Your task to perform on an android device: turn on priority inbox in the gmail app Image 0: 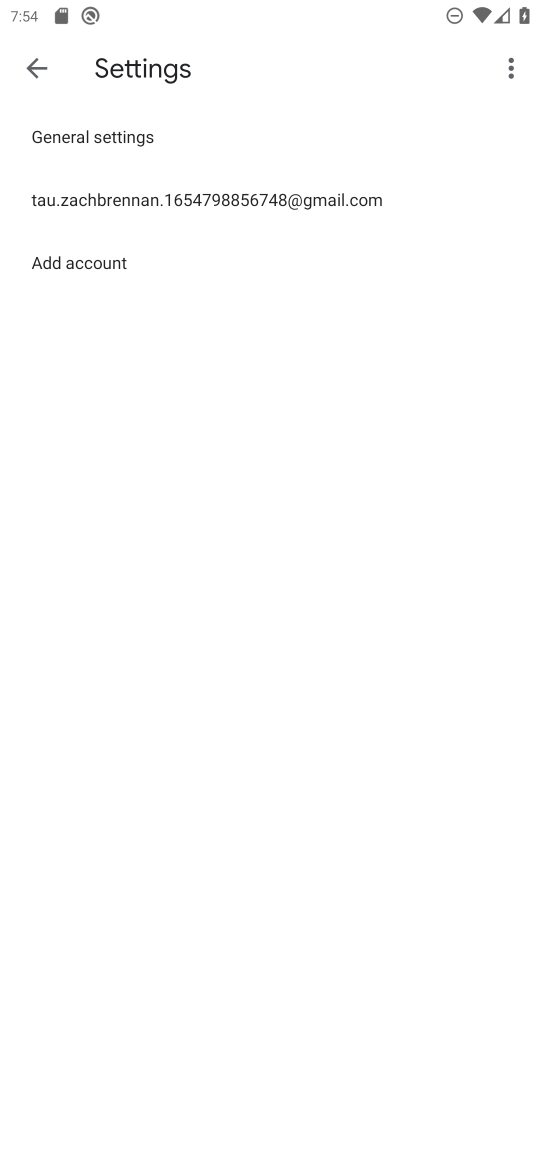
Step 0: press back button
Your task to perform on an android device: turn on priority inbox in the gmail app Image 1: 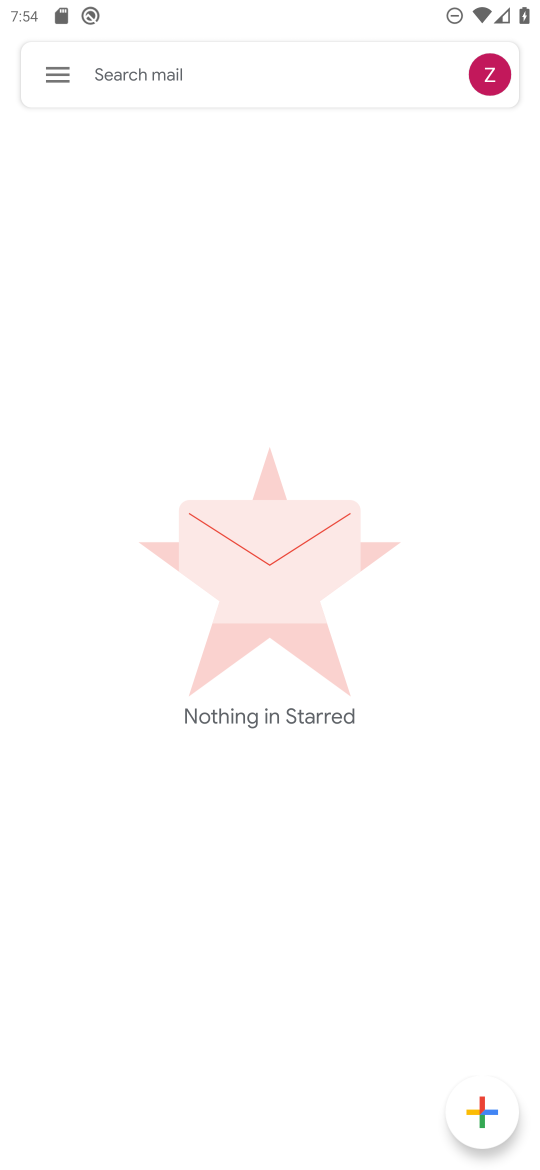
Step 1: click (53, 71)
Your task to perform on an android device: turn on priority inbox in the gmail app Image 2: 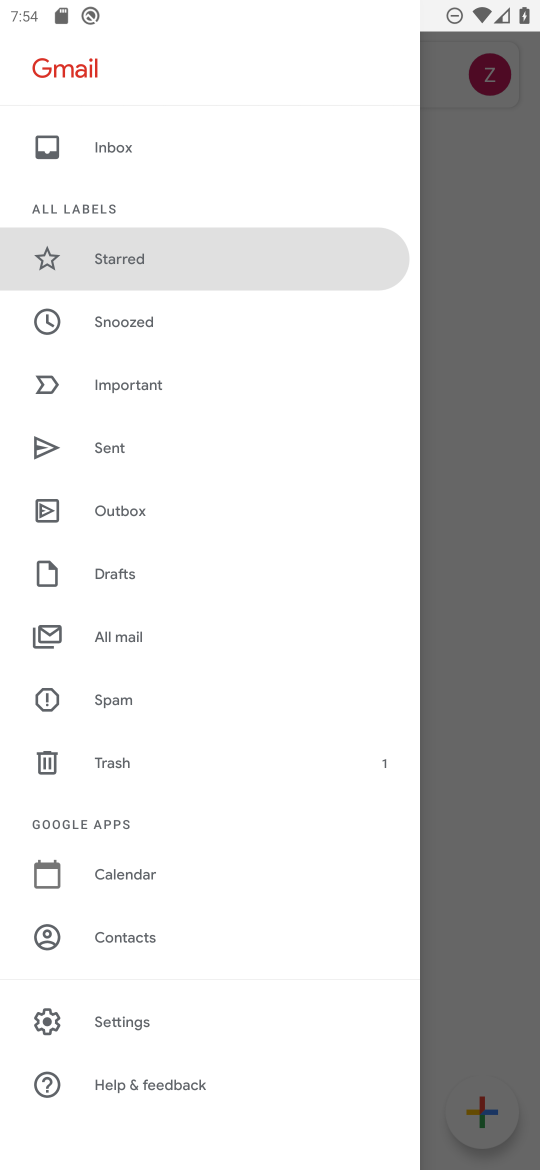
Step 2: click (126, 1024)
Your task to perform on an android device: turn on priority inbox in the gmail app Image 3: 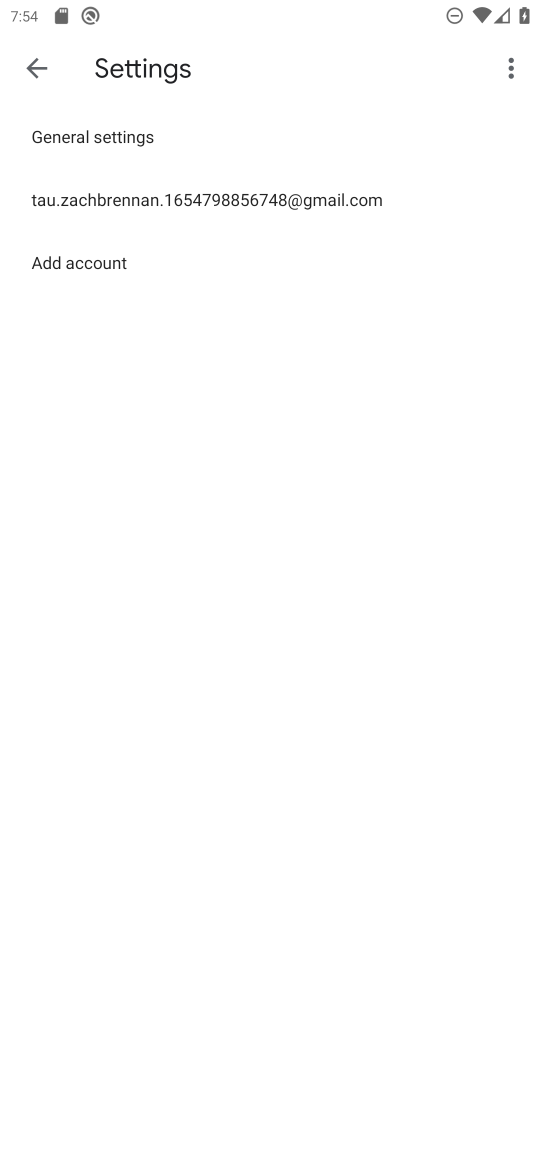
Step 3: click (198, 197)
Your task to perform on an android device: turn on priority inbox in the gmail app Image 4: 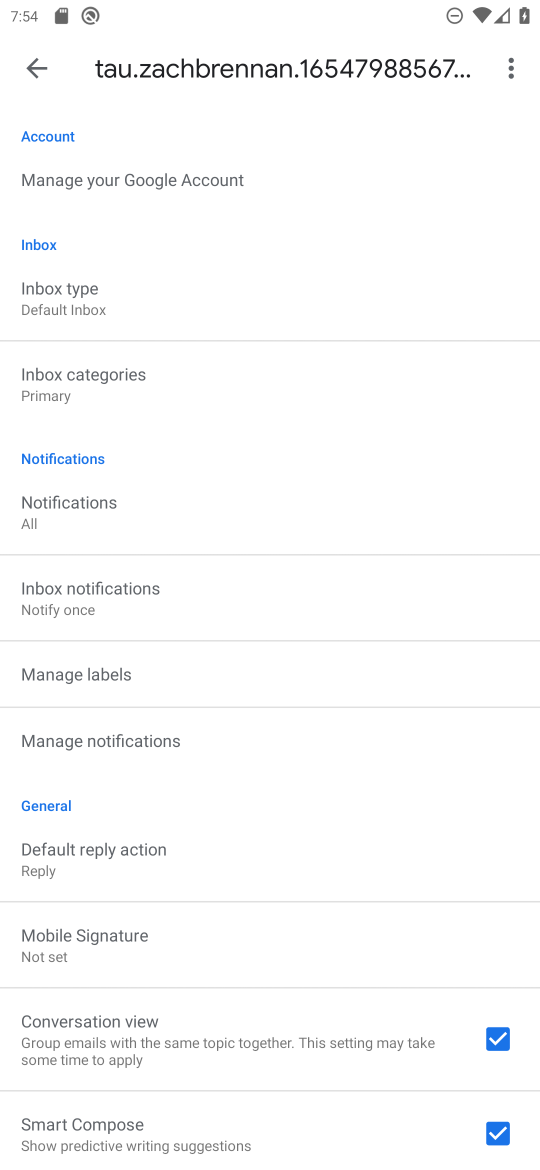
Step 4: click (47, 303)
Your task to perform on an android device: turn on priority inbox in the gmail app Image 5: 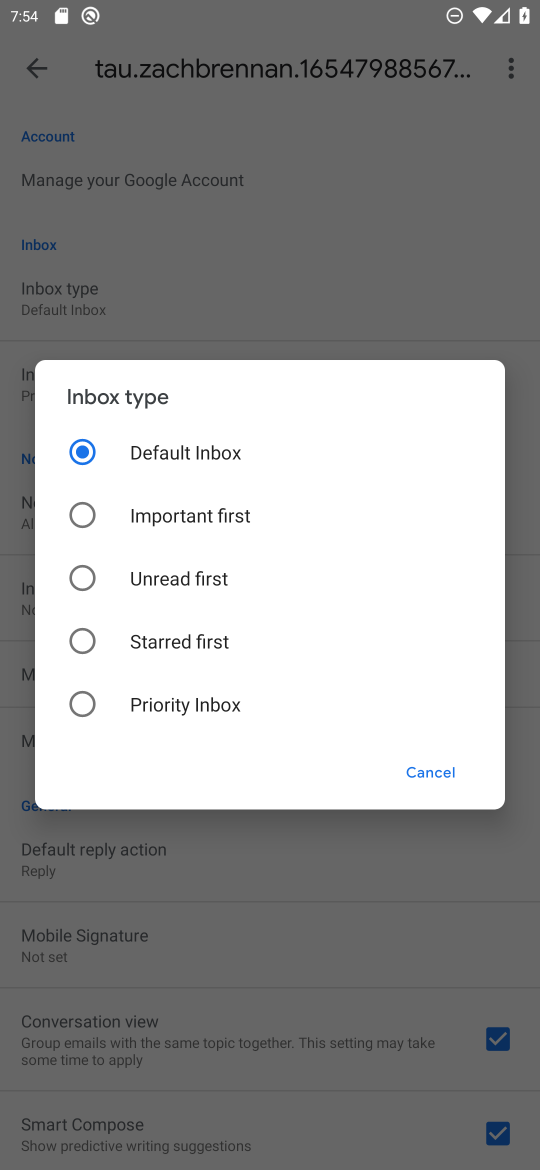
Step 5: click (88, 702)
Your task to perform on an android device: turn on priority inbox in the gmail app Image 6: 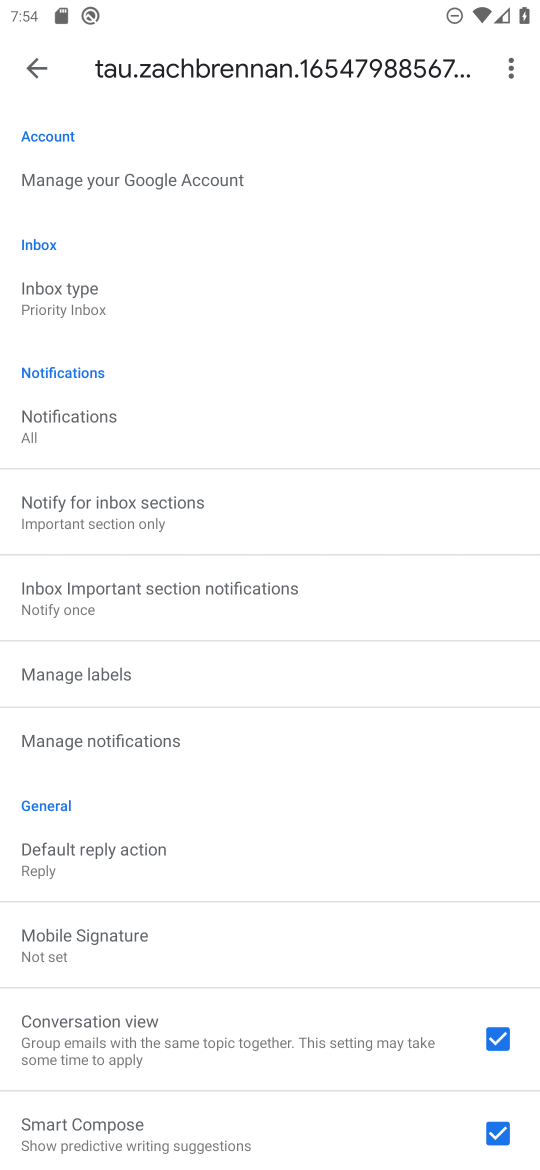
Step 6: task complete